Your task to perform on an android device: turn off airplane mode Image 0: 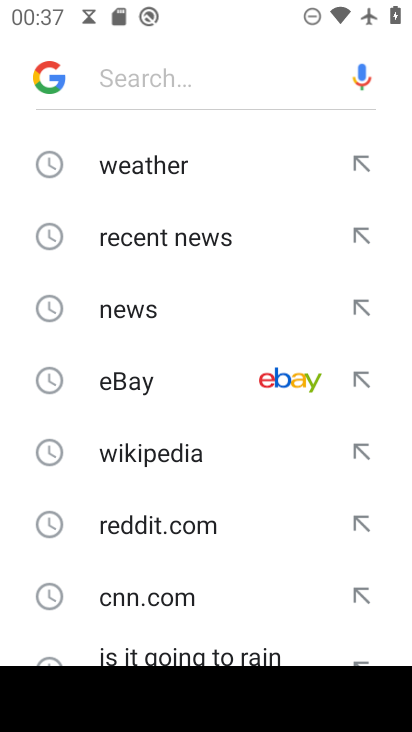
Step 0: press home button
Your task to perform on an android device: turn off airplane mode Image 1: 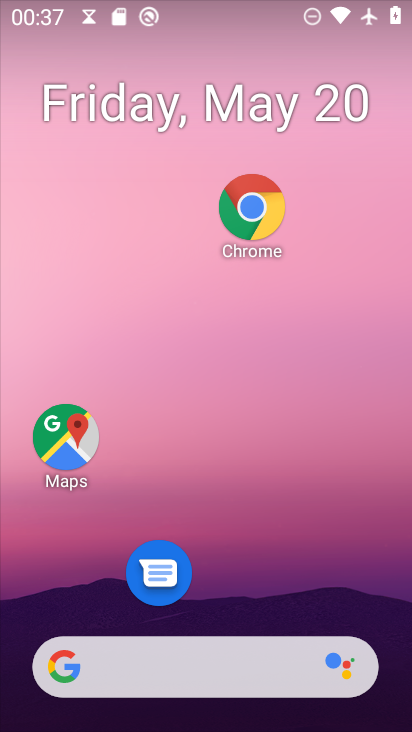
Step 1: drag from (267, 566) to (310, 54)
Your task to perform on an android device: turn off airplane mode Image 2: 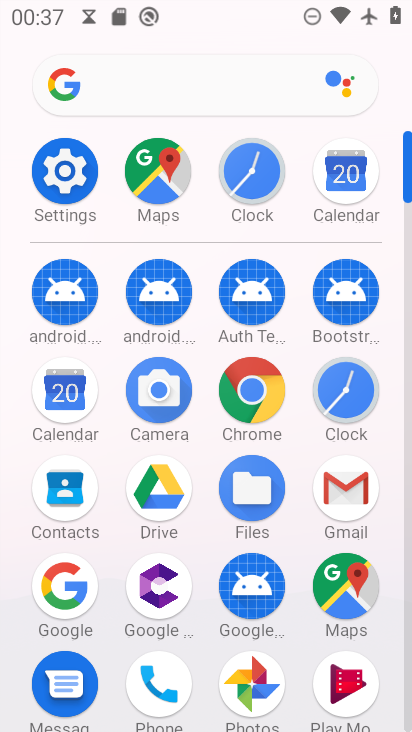
Step 2: click (61, 174)
Your task to perform on an android device: turn off airplane mode Image 3: 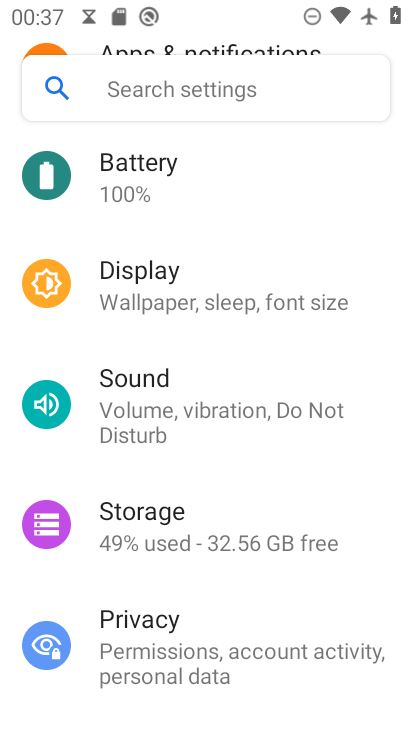
Step 3: drag from (174, 210) to (298, 633)
Your task to perform on an android device: turn off airplane mode Image 4: 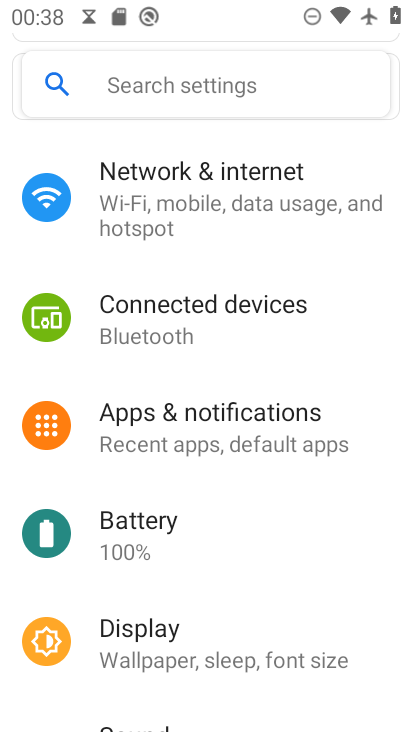
Step 4: click (279, 223)
Your task to perform on an android device: turn off airplane mode Image 5: 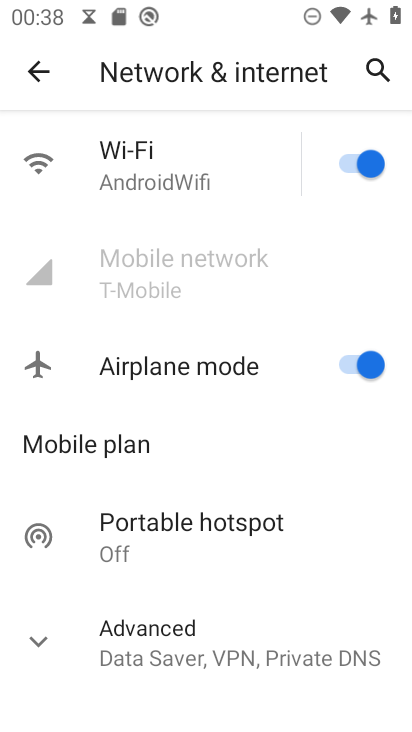
Step 5: click (368, 349)
Your task to perform on an android device: turn off airplane mode Image 6: 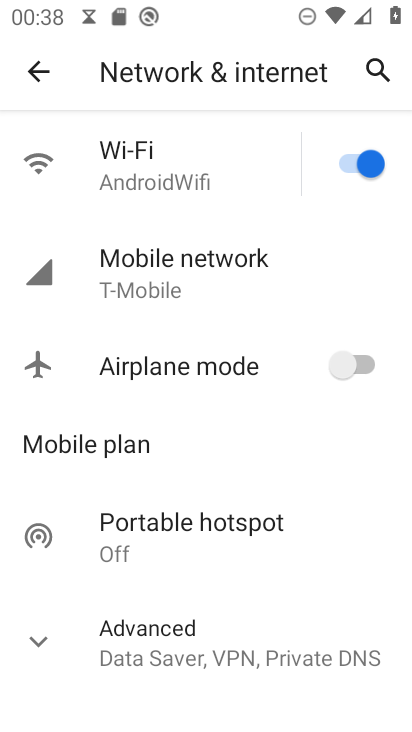
Step 6: task complete